Your task to perform on an android device: See recent photos Image 0: 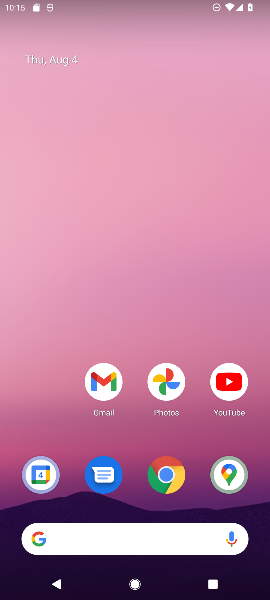
Step 0: drag from (144, 482) to (162, 133)
Your task to perform on an android device: See recent photos Image 1: 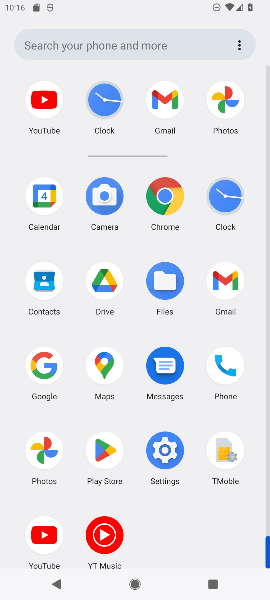
Step 1: click (42, 439)
Your task to perform on an android device: See recent photos Image 2: 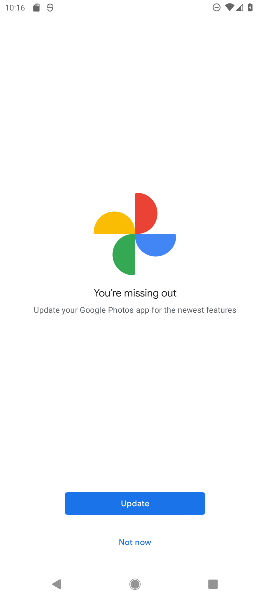
Step 2: click (116, 168)
Your task to perform on an android device: See recent photos Image 3: 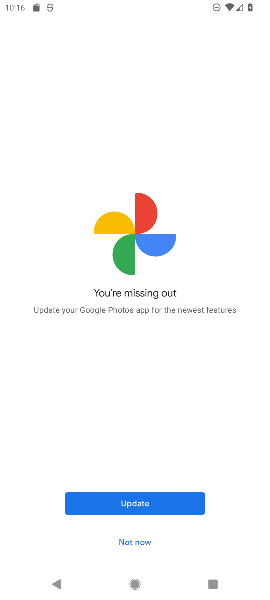
Step 3: click (142, 537)
Your task to perform on an android device: See recent photos Image 4: 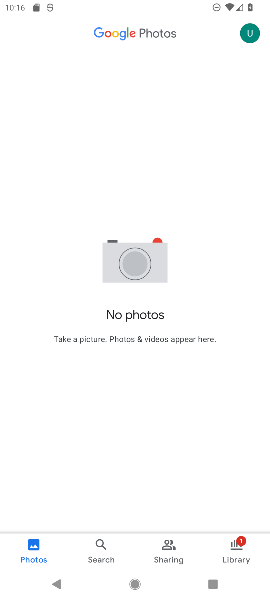
Step 4: task complete